Your task to perform on an android device: Open accessibility settings Image 0: 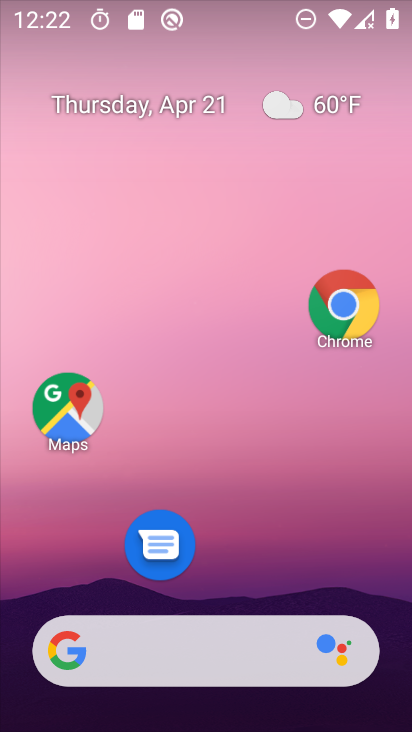
Step 0: drag from (222, 476) to (249, 94)
Your task to perform on an android device: Open accessibility settings Image 1: 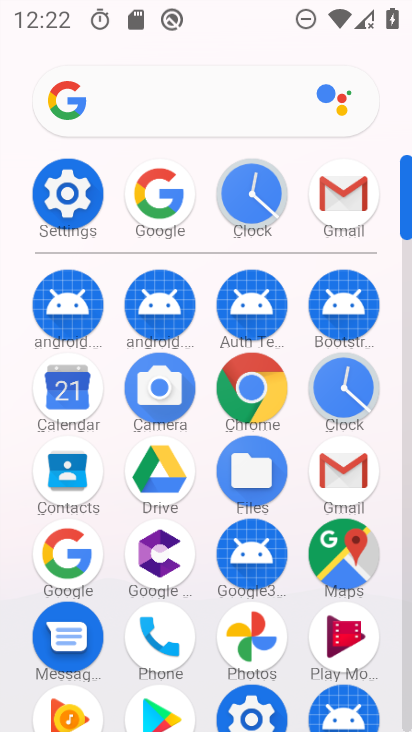
Step 1: click (88, 209)
Your task to perform on an android device: Open accessibility settings Image 2: 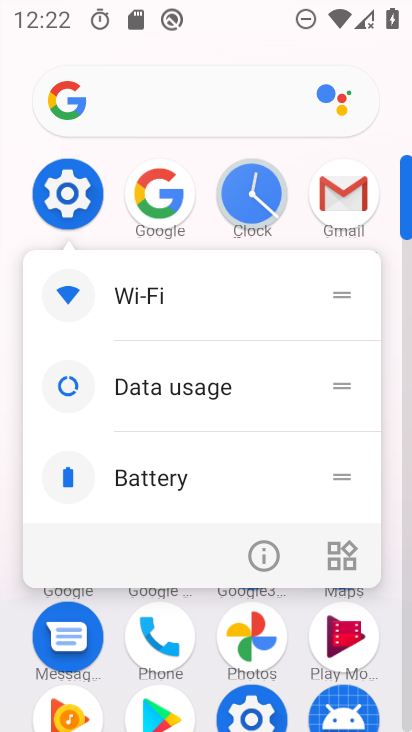
Step 2: click (85, 204)
Your task to perform on an android device: Open accessibility settings Image 3: 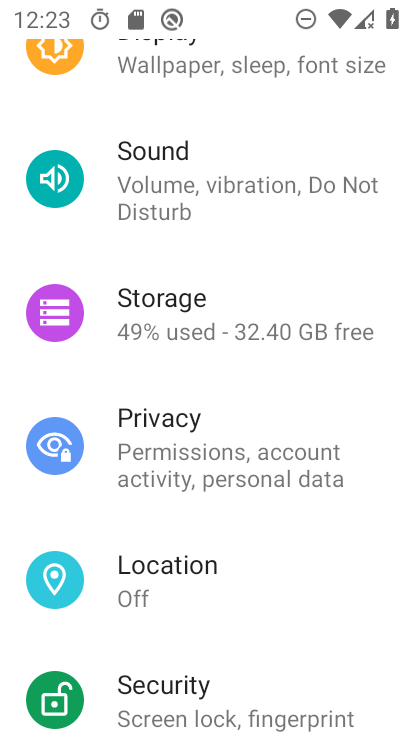
Step 3: drag from (242, 578) to (274, 195)
Your task to perform on an android device: Open accessibility settings Image 4: 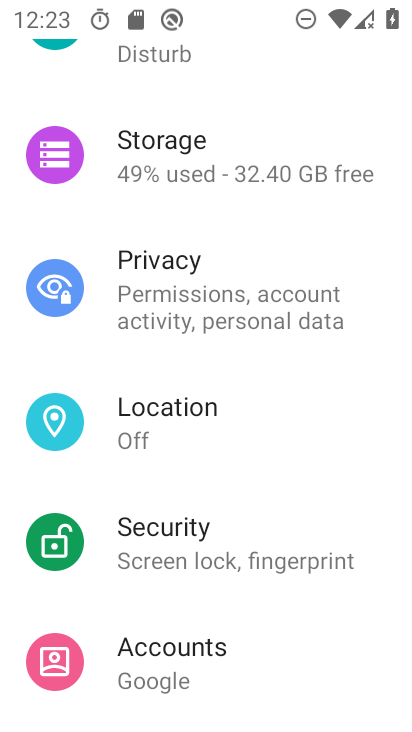
Step 4: drag from (252, 417) to (267, 310)
Your task to perform on an android device: Open accessibility settings Image 5: 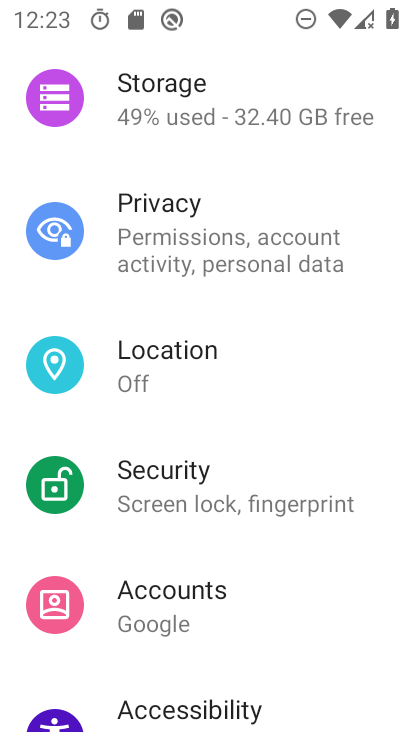
Step 5: drag from (258, 503) to (282, 271)
Your task to perform on an android device: Open accessibility settings Image 6: 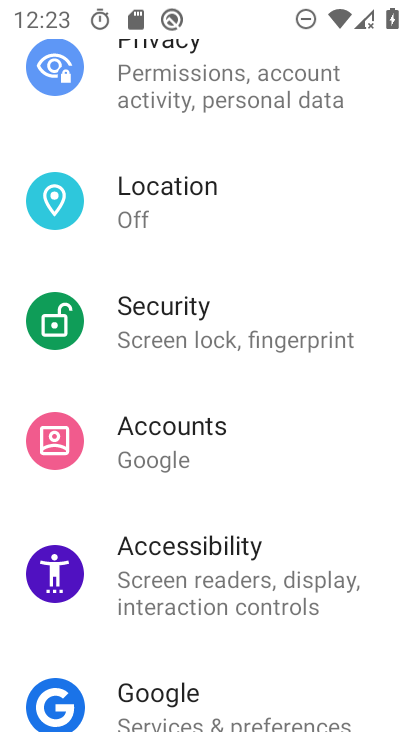
Step 6: click (265, 553)
Your task to perform on an android device: Open accessibility settings Image 7: 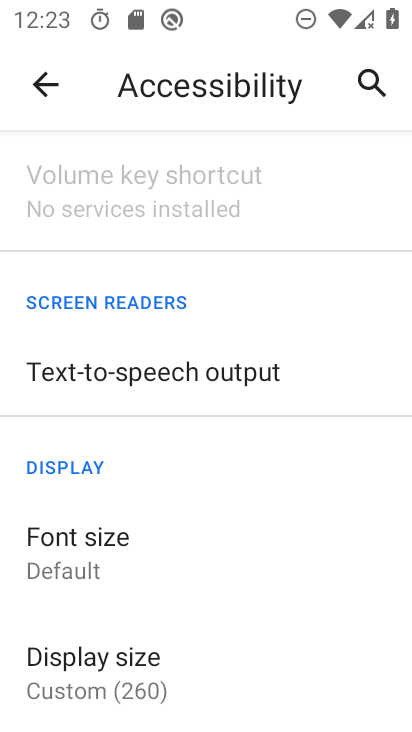
Step 7: task complete